Your task to perform on an android device: Go to ESPN.com Image 0: 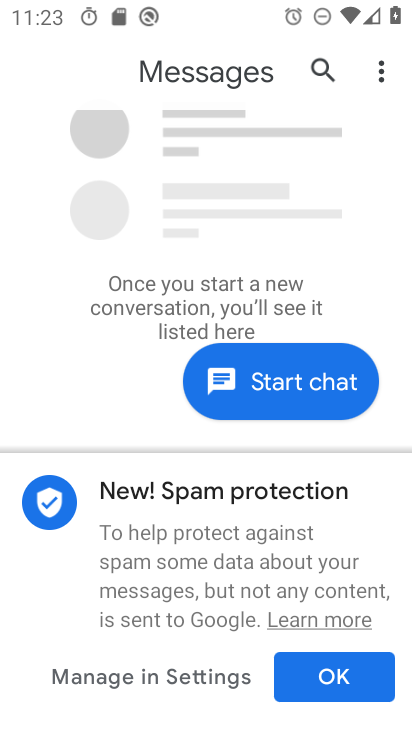
Step 0: press home button
Your task to perform on an android device: Go to ESPN.com Image 1: 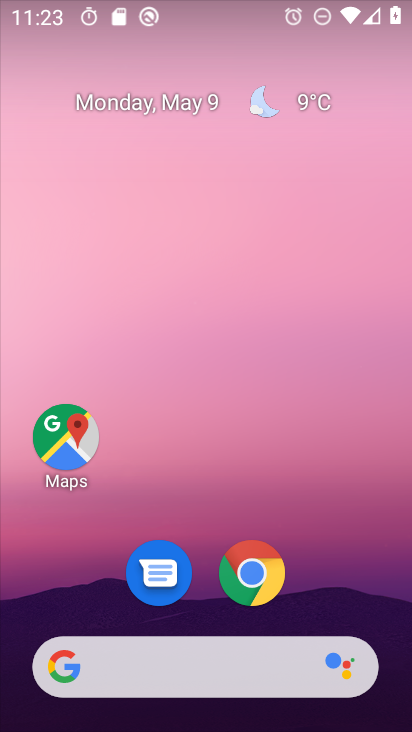
Step 1: click (247, 571)
Your task to perform on an android device: Go to ESPN.com Image 2: 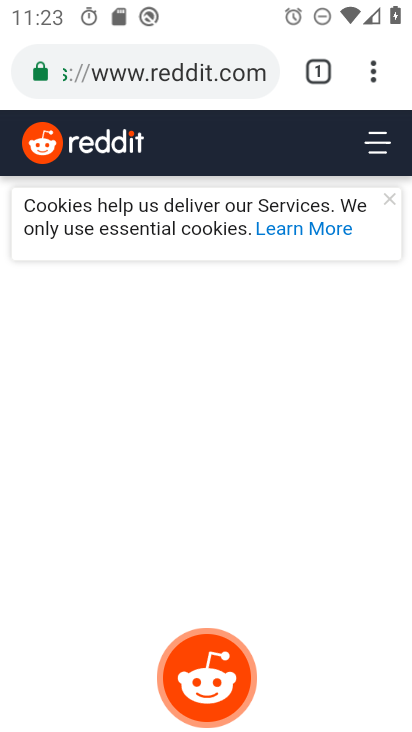
Step 2: click (223, 61)
Your task to perform on an android device: Go to ESPN.com Image 3: 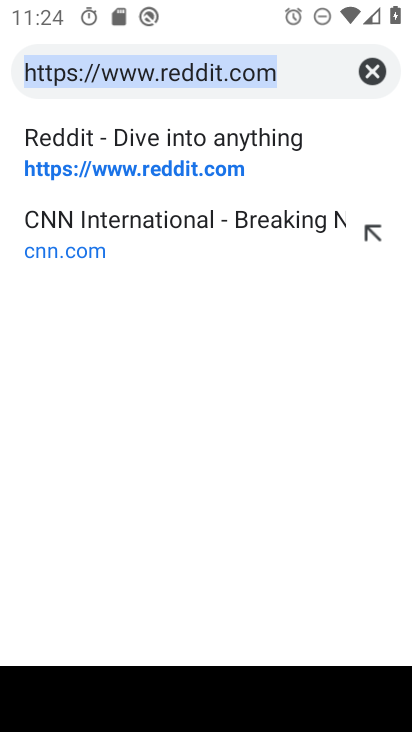
Step 3: type "espn.com"
Your task to perform on an android device: Go to ESPN.com Image 4: 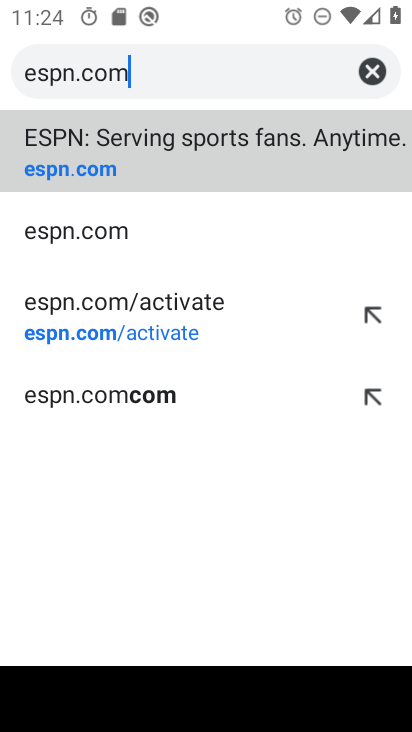
Step 4: click (105, 166)
Your task to perform on an android device: Go to ESPN.com Image 5: 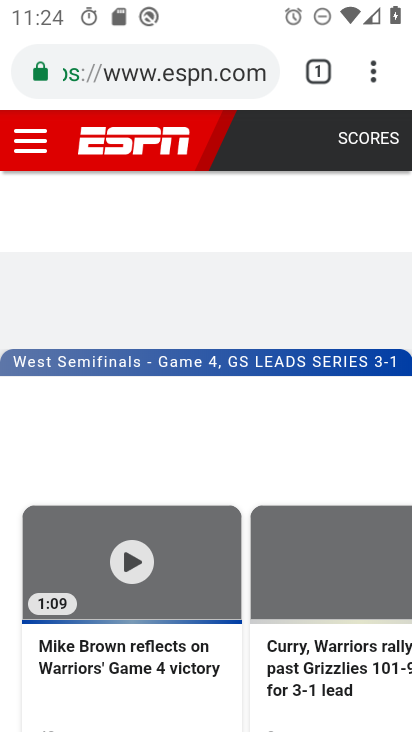
Step 5: task complete